Your task to perform on an android device: Go to accessibility settings Image 0: 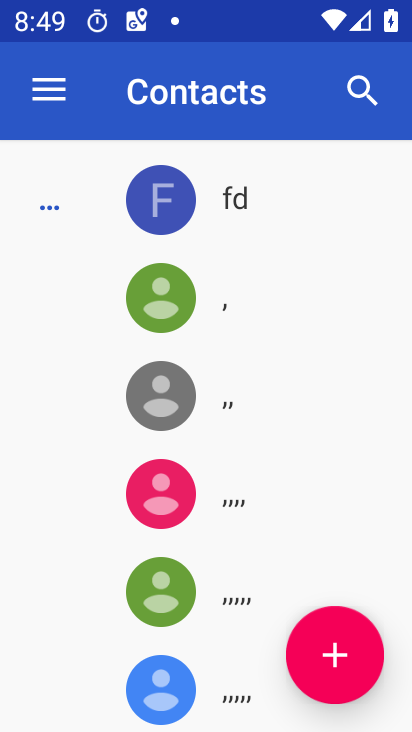
Step 0: press home button
Your task to perform on an android device: Go to accessibility settings Image 1: 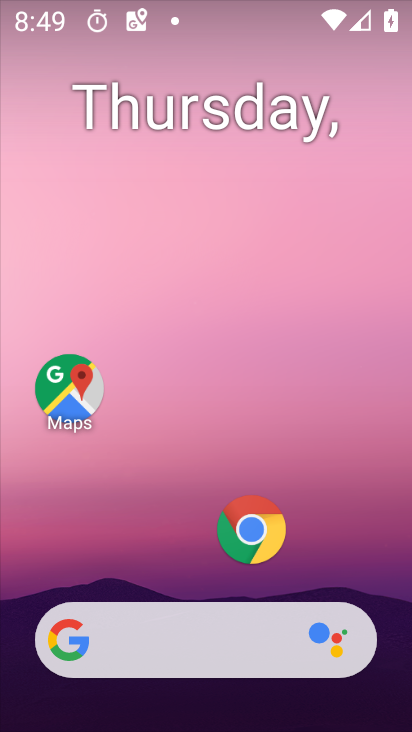
Step 1: drag from (198, 573) to (210, 143)
Your task to perform on an android device: Go to accessibility settings Image 2: 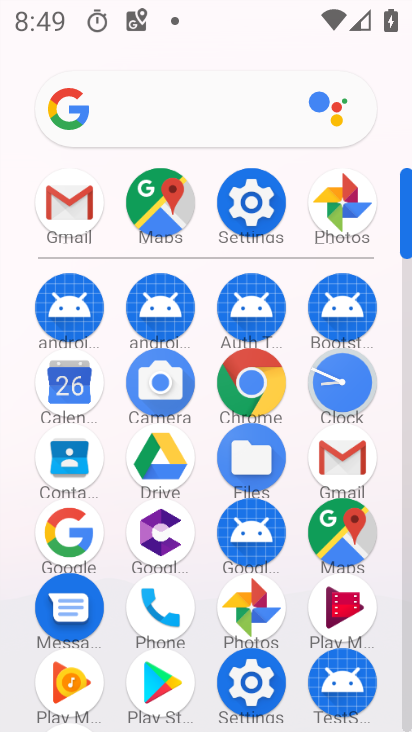
Step 2: click (251, 199)
Your task to perform on an android device: Go to accessibility settings Image 3: 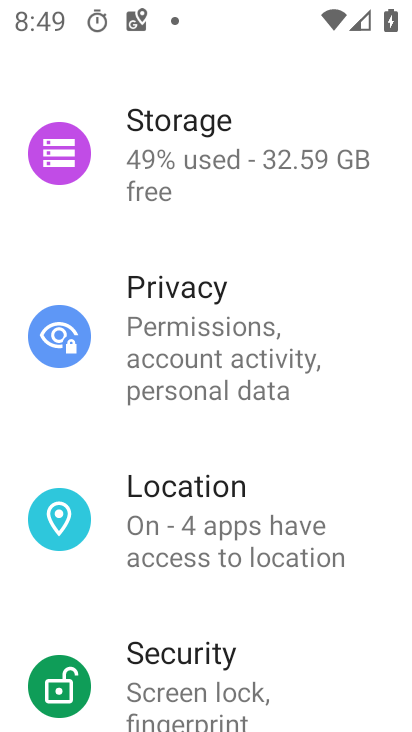
Step 3: drag from (260, 647) to (266, 101)
Your task to perform on an android device: Go to accessibility settings Image 4: 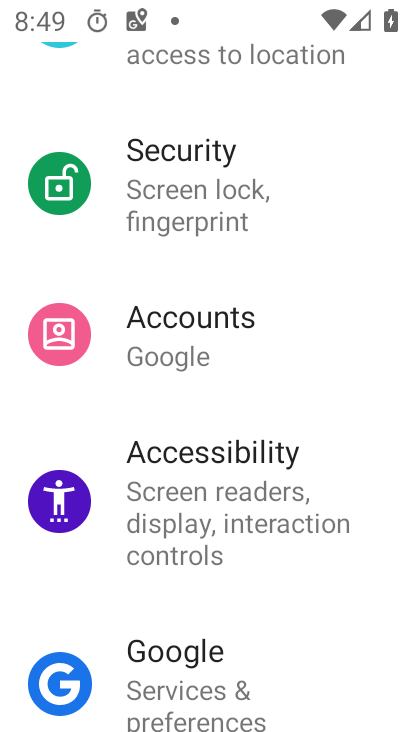
Step 4: click (208, 478)
Your task to perform on an android device: Go to accessibility settings Image 5: 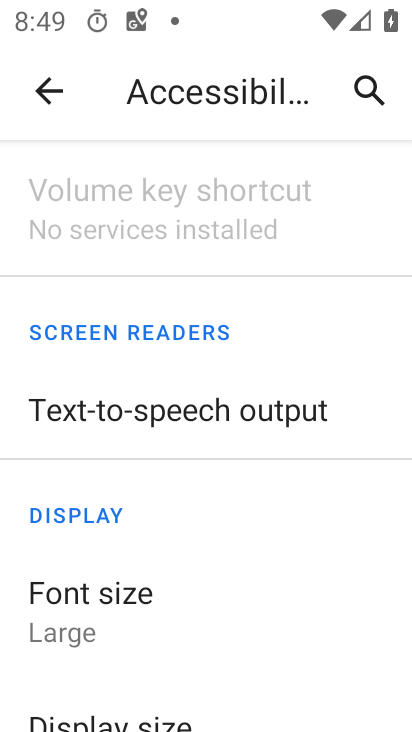
Step 5: task complete